Your task to perform on an android device: install app "Mercado Libre" Image 0: 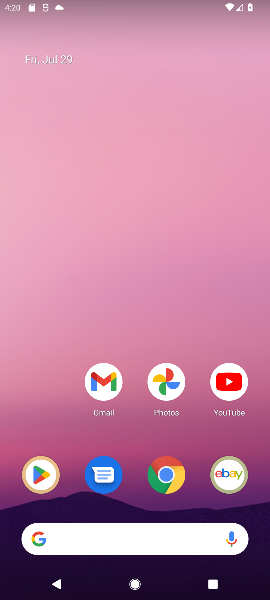
Step 0: click (42, 478)
Your task to perform on an android device: install app "Mercado Libre" Image 1: 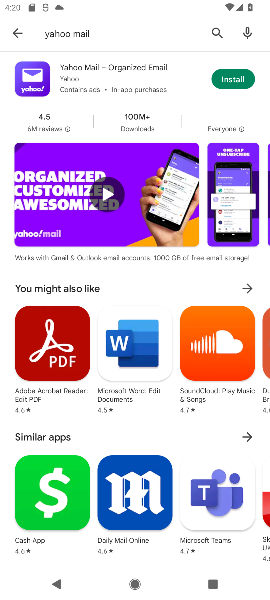
Step 1: click (19, 29)
Your task to perform on an android device: install app "Mercado Libre" Image 2: 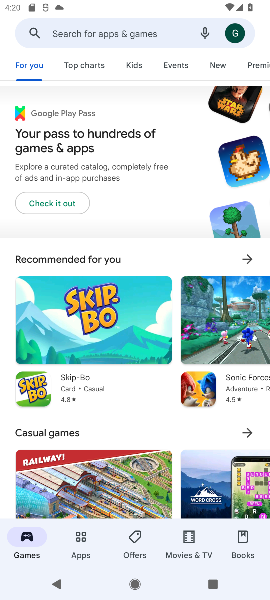
Step 2: click (69, 30)
Your task to perform on an android device: install app "Mercado Libre" Image 3: 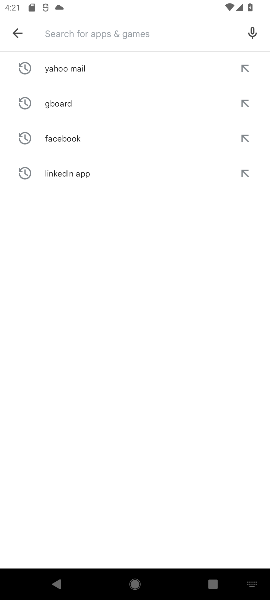
Step 3: type "Mercado Libre"
Your task to perform on an android device: install app "Mercado Libre" Image 4: 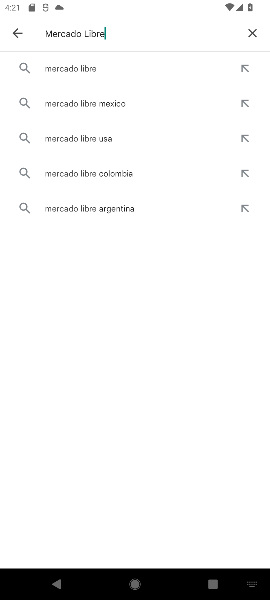
Step 4: click (77, 70)
Your task to perform on an android device: install app "Mercado Libre" Image 5: 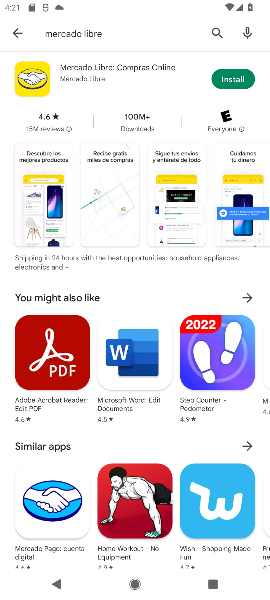
Step 5: click (236, 76)
Your task to perform on an android device: install app "Mercado Libre" Image 6: 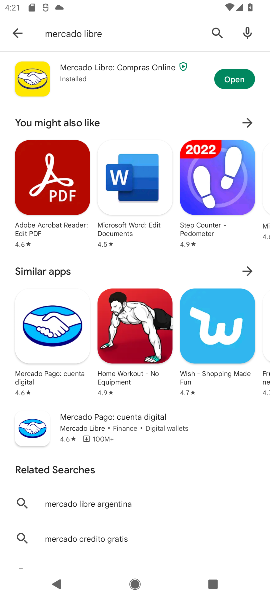
Step 6: task complete